Your task to perform on an android device: choose inbox layout in the gmail app Image 0: 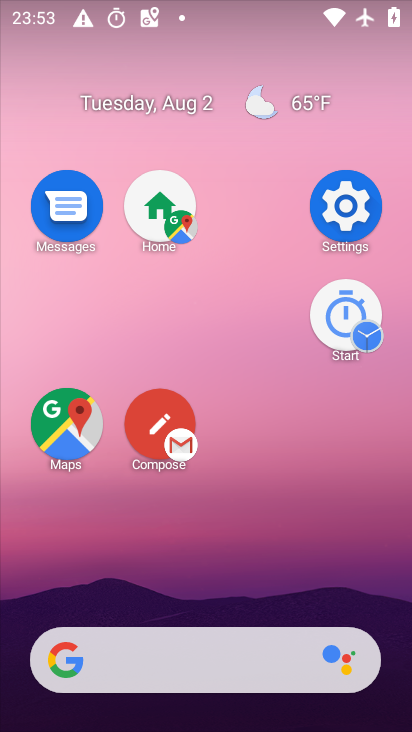
Step 0: drag from (200, 430) to (194, 288)
Your task to perform on an android device: choose inbox layout in the gmail app Image 1: 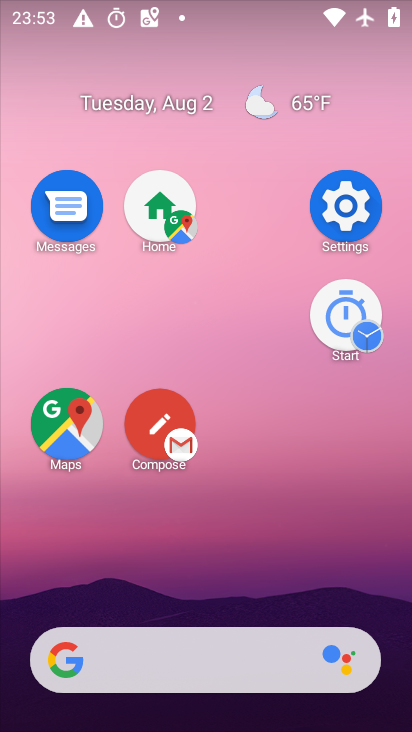
Step 1: drag from (284, 591) to (276, 240)
Your task to perform on an android device: choose inbox layout in the gmail app Image 2: 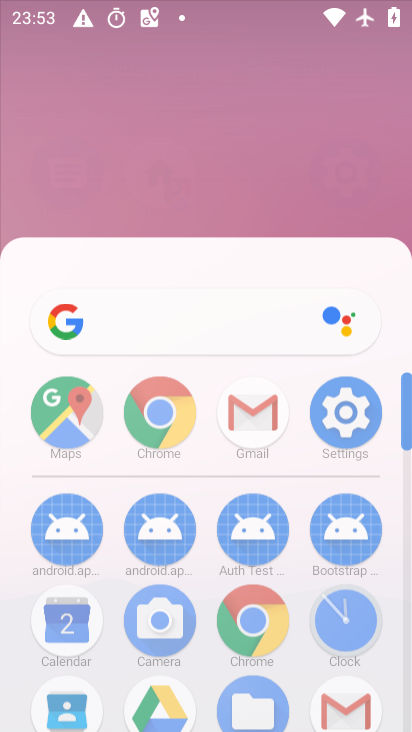
Step 2: drag from (244, 430) to (201, 123)
Your task to perform on an android device: choose inbox layout in the gmail app Image 3: 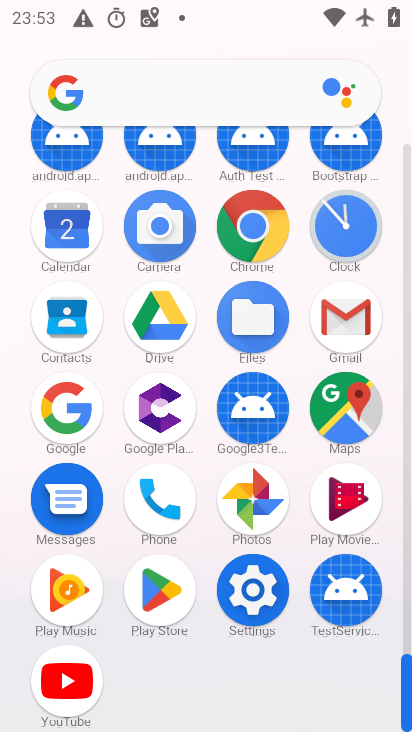
Step 3: click (345, 326)
Your task to perform on an android device: choose inbox layout in the gmail app Image 4: 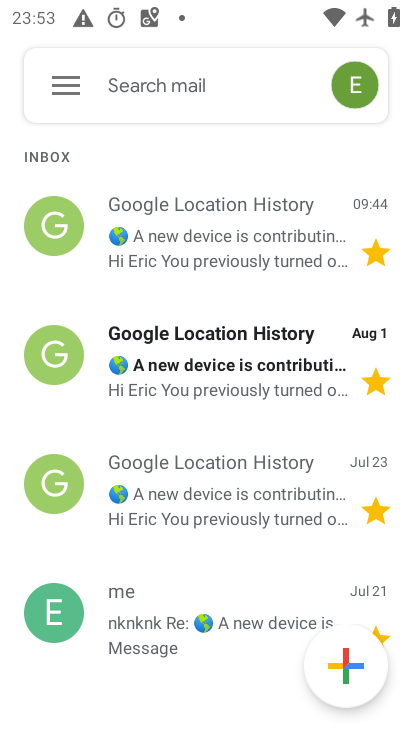
Step 4: drag from (67, 77) to (65, 168)
Your task to perform on an android device: choose inbox layout in the gmail app Image 5: 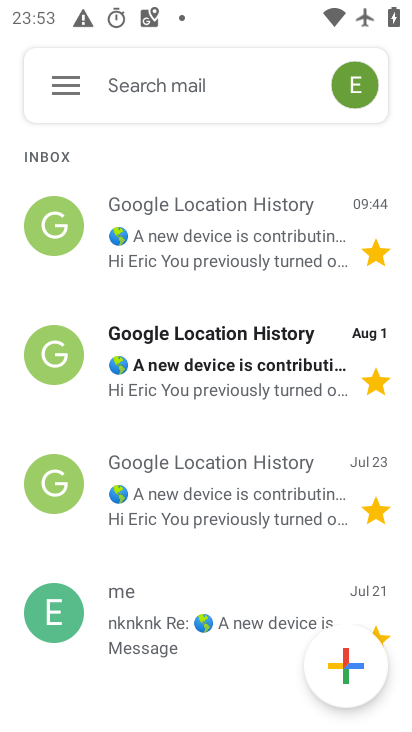
Step 5: click (70, 101)
Your task to perform on an android device: choose inbox layout in the gmail app Image 6: 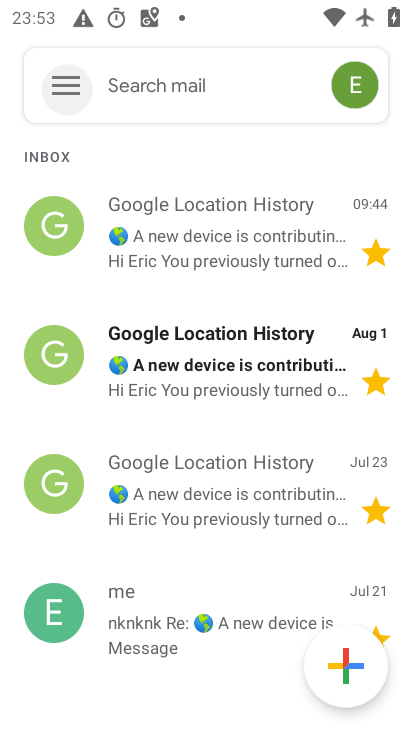
Step 6: click (70, 100)
Your task to perform on an android device: choose inbox layout in the gmail app Image 7: 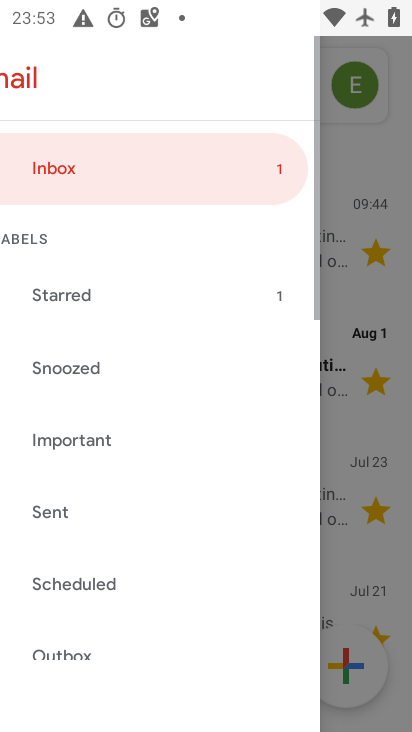
Step 7: click (69, 99)
Your task to perform on an android device: choose inbox layout in the gmail app Image 8: 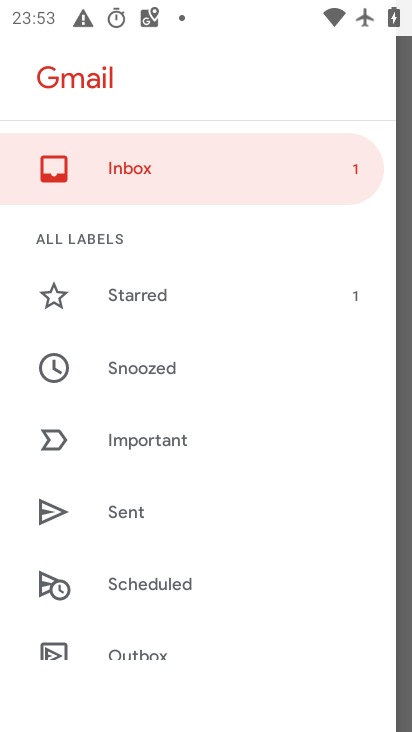
Step 8: drag from (178, 550) to (201, 219)
Your task to perform on an android device: choose inbox layout in the gmail app Image 9: 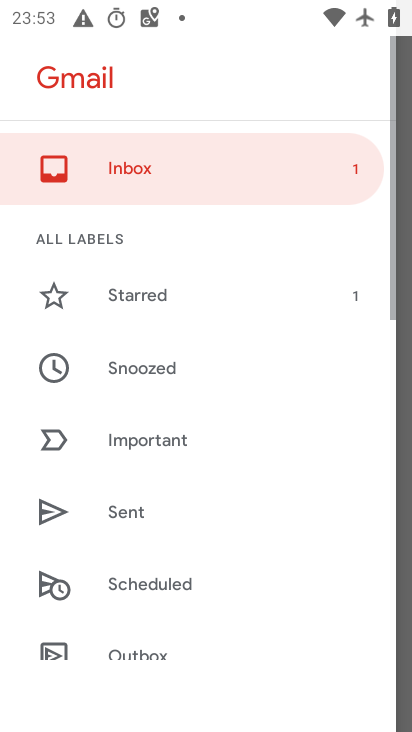
Step 9: drag from (216, 475) to (180, 124)
Your task to perform on an android device: choose inbox layout in the gmail app Image 10: 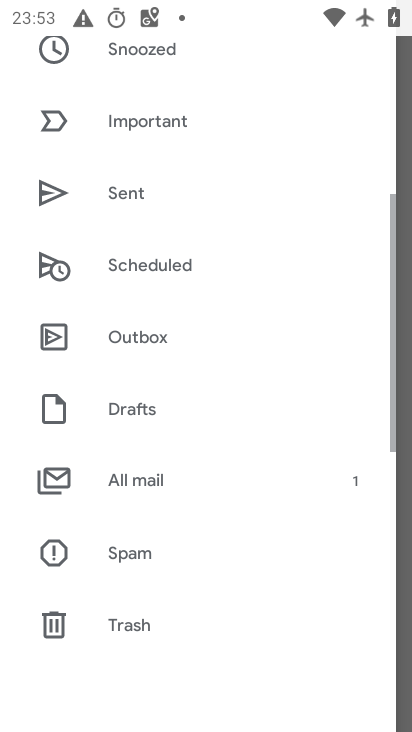
Step 10: drag from (184, 454) to (190, 172)
Your task to perform on an android device: choose inbox layout in the gmail app Image 11: 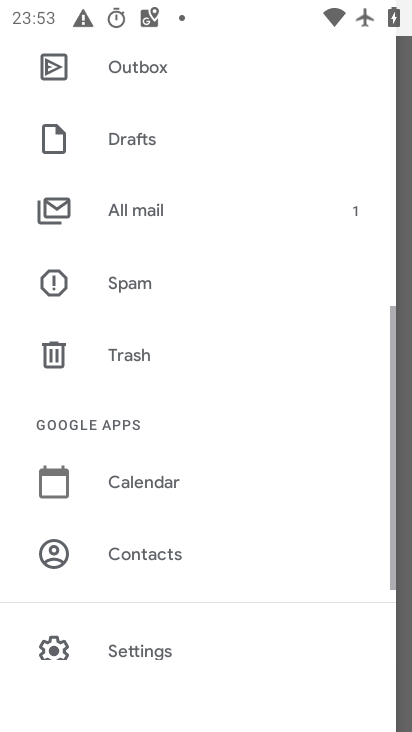
Step 11: drag from (220, 515) to (200, 235)
Your task to perform on an android device: choose inbox layout in the gmail app Image 12: 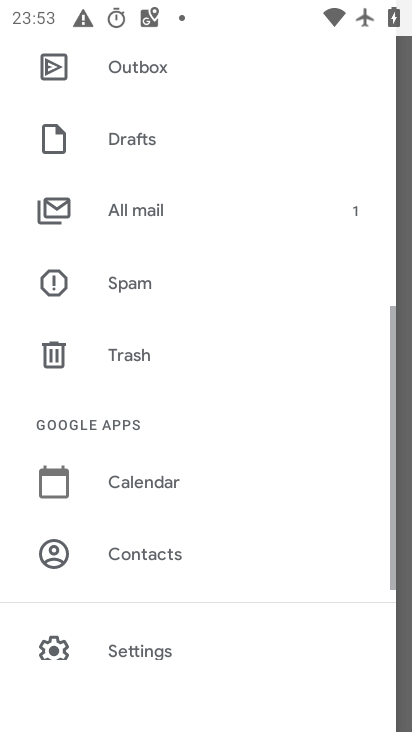
Step 12: drag from (183, 523) to (178, 208)
Your task to perform on an android device: choose inbox layout in the gmail app Image 13: 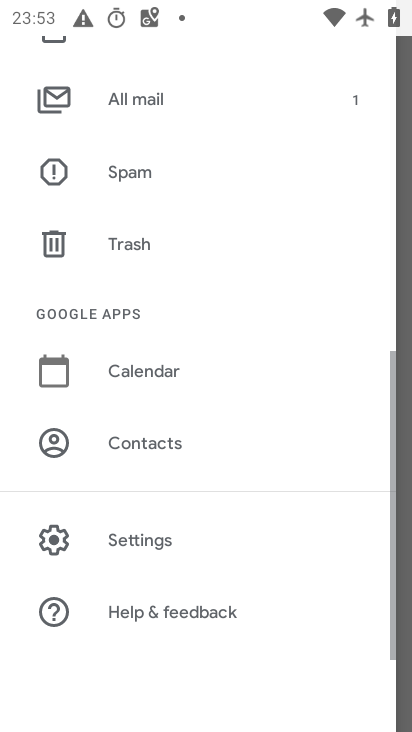
Step 13: click (141, 658)
Your task to perform on an android device: choose inbox layout in the gmail app Image 14: 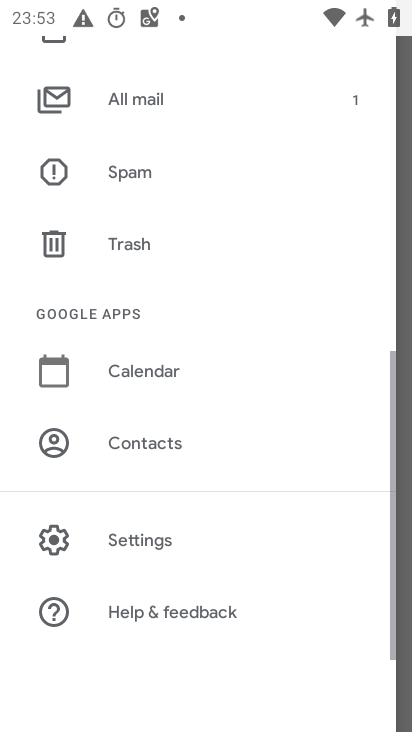
Step 14: click (141, 530)
Your task to perform on an android device: choose inbox layout in the gmail app Image 15: 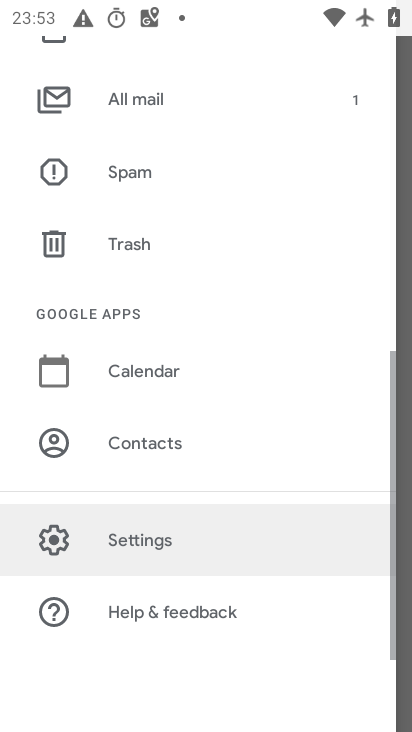
Step 15: click (141, 537)
Your task to perform on an android device: choose inbox layout in the gmail app Image 16: 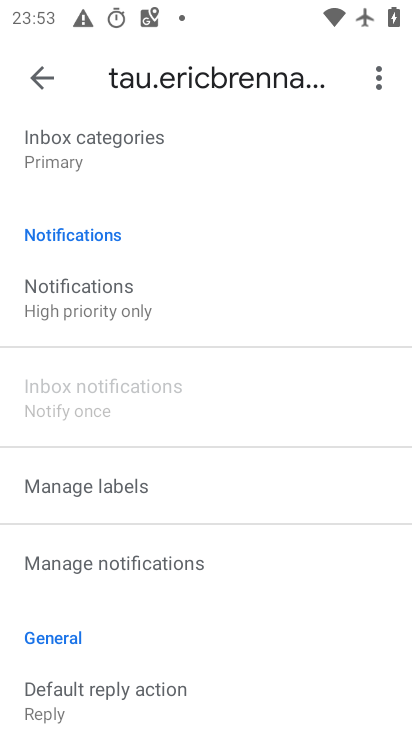
Step 16: drag from (192, 591) to (197, 334)
Your task to perform on an android device: choose inbox layout in the gmail app Image 17: 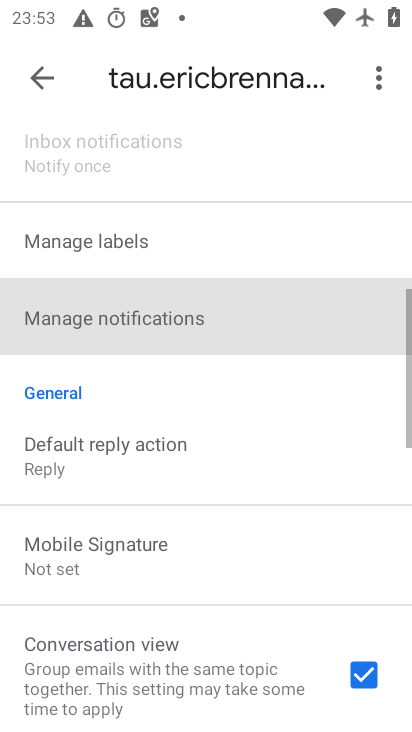
Step 17: drag from (197, 576) to (197, 368)
Your task to perform on an android device: choose inbox layout in the gmail app Image 18: 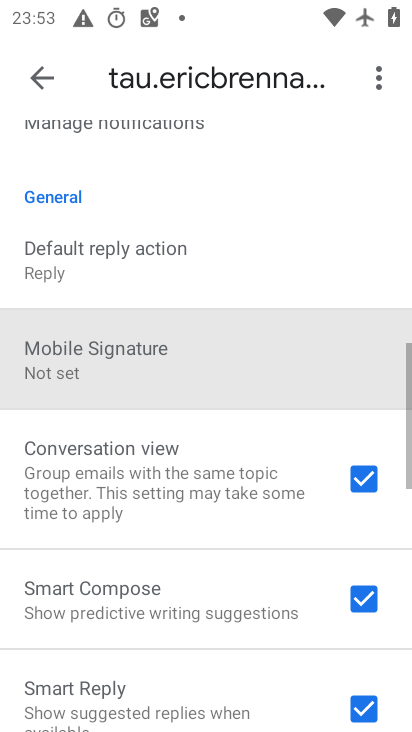
Step 18: drag from (206, 550) to (201, 325)
Your task to perform on an android device: choose inbox layout in the gmail app Image 19: 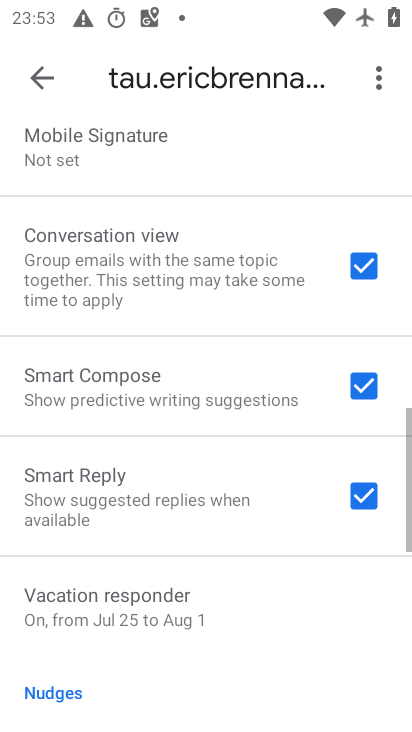
Step 19: drag from (181, 577) to (181, 361)
Your task to perform on an android device: choose inbox layout in the gmail app Image 20: 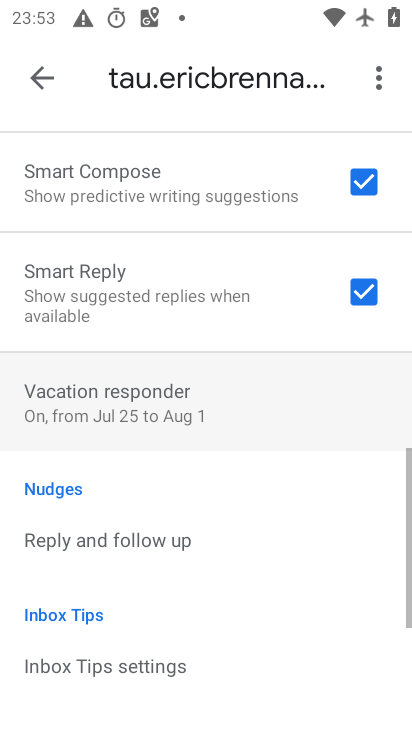
Step 20: drag from (175, 542) to (152, 340)
Your task to perform on an android device: choose inbox layout in the gmail app Image 21: 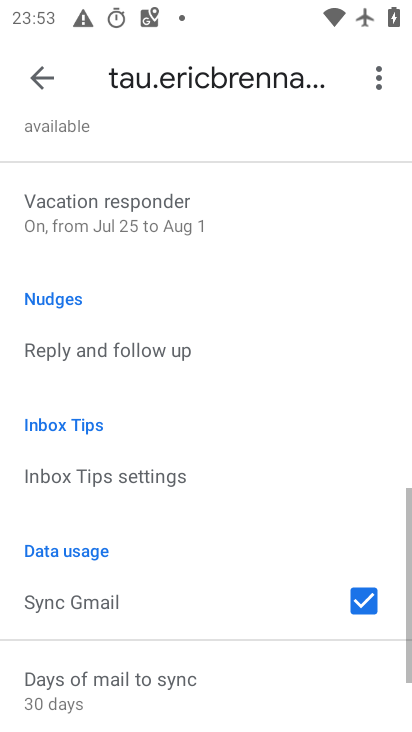
Step 21: drag from (142, 193) to (175, 609)
Your task to perform on an android device: choose inbox layout in the gmail app Image 22: 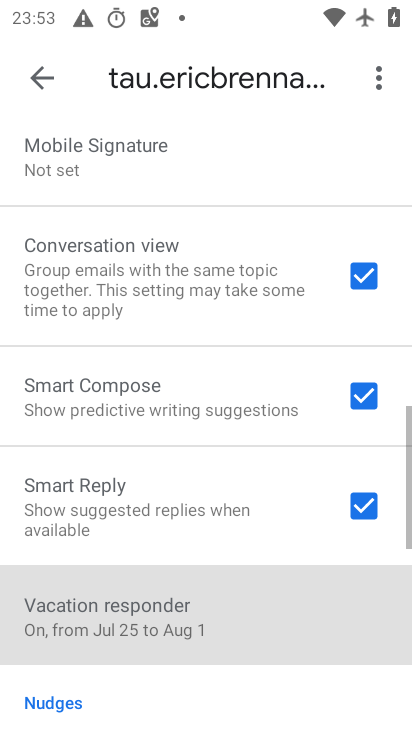
Step 22: drag from (168, 319) to (205, 680)
Your task to perform on an android device: choose inbox layout in the gmail app Image 23: 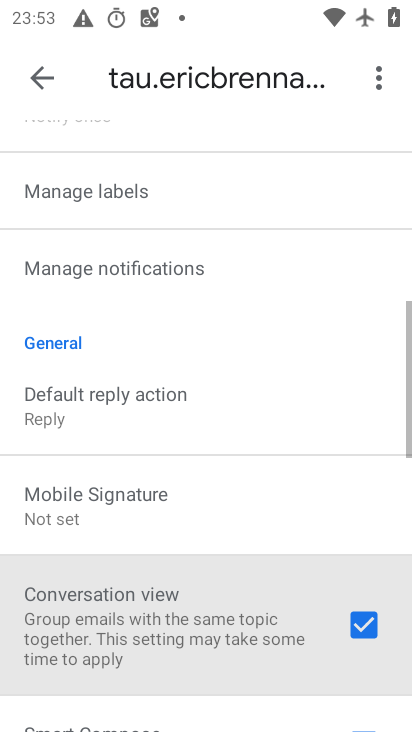
Step 23: drag from (121, 290) to (187, 678)
Your task to perform on an android device: choose inbox layout in the gmail app Image 24: 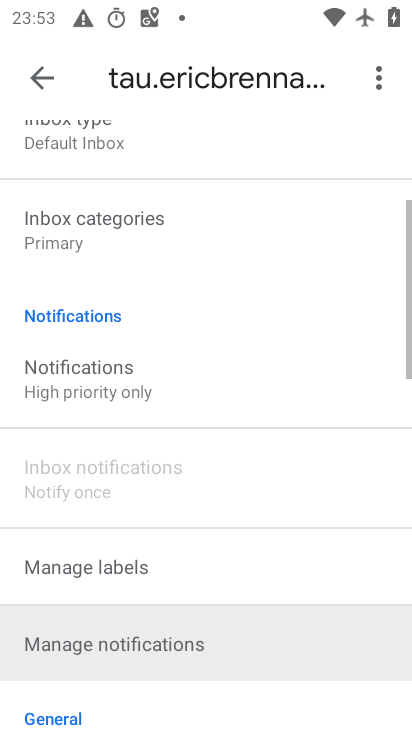
Step 24: drag from (142, 379) to (189, 655)
Your task to perform on an android device: choose inbox layout in the gmail app Image 25: 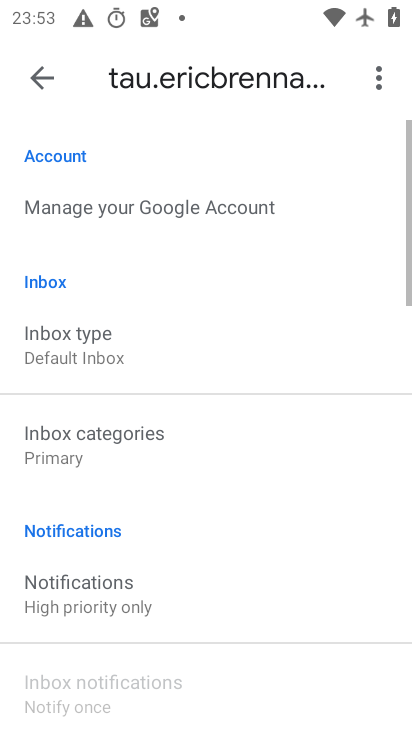
Step 25: drag from (133, 305) to (166, 688)
Your task to perform on an android device: choose inbox layout in the gmail app Image 26: 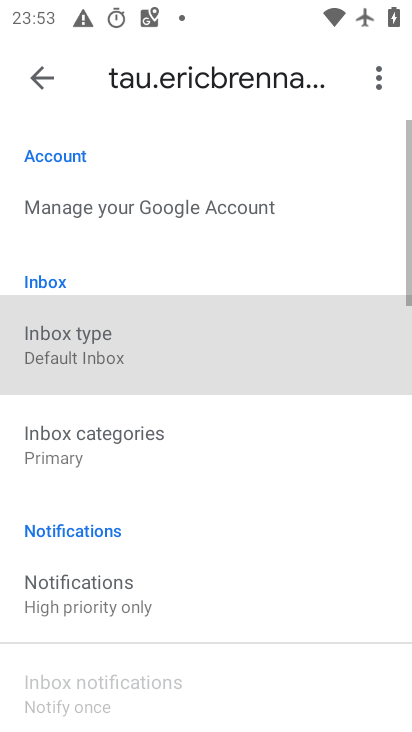
Step 26: drag from (28, 236) to (159, 637)
Your task to perform on an android device: choose inbox layout in the gmail app Image 27: 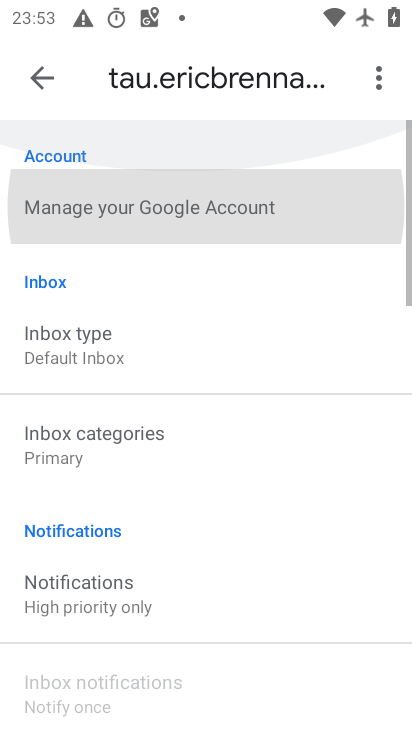
Step 27: click (223, 649)
Your task to perform on an android device: choose inbox layout in the gmail app Image 28: 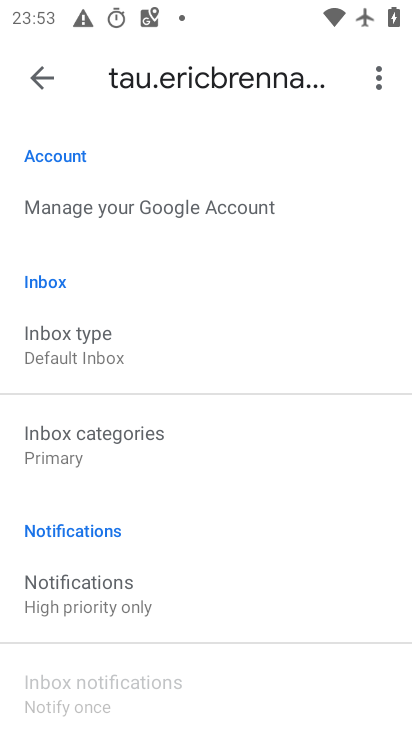
Step 28: click (94, 340)
Your task to perform on an android device: choose inbox layout in the gmail app Image 29: 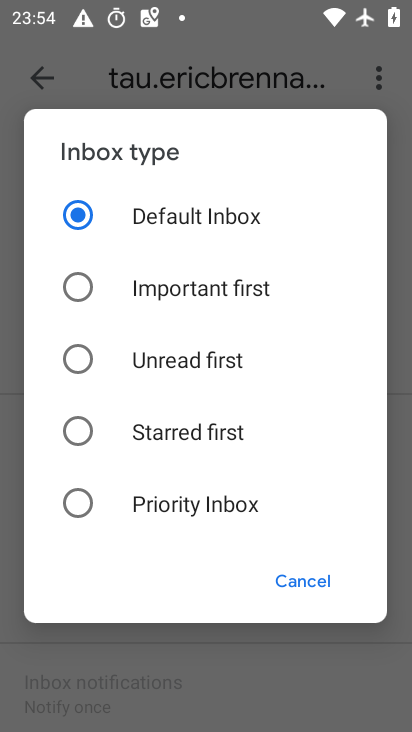
Step 29: click (315, 89)
Your task to perform on an android device: choose inbox layout in the gmail app Image 30: 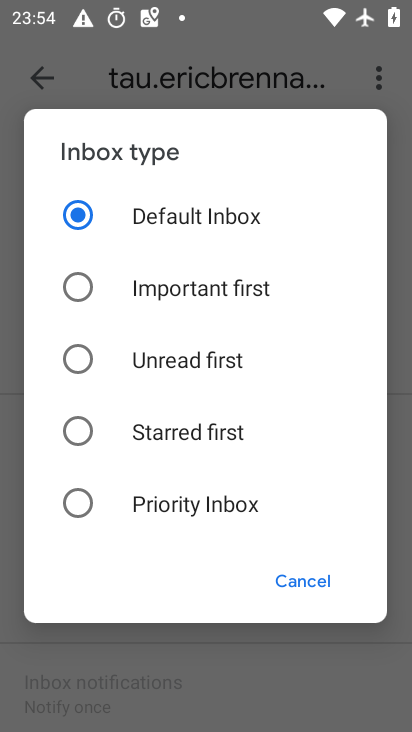
Step 30: task complete